Your task to perform on an android device: turn notification dots off Image 0: 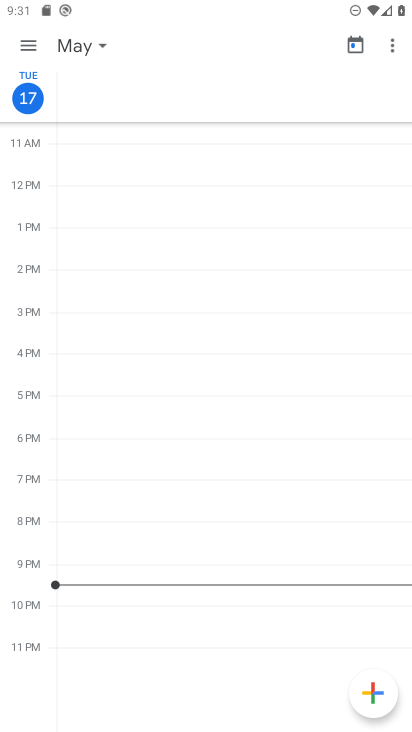
Step 0: press home button
Your task to perform on an android device: turn notification dots off Image 1: 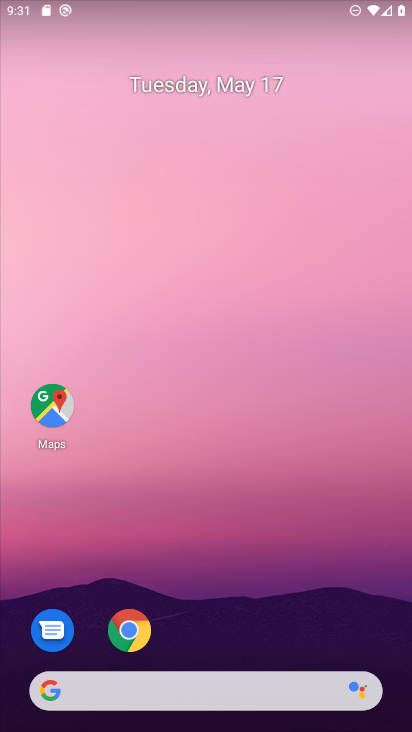
Step 1: drag from (330, 561) to (321, 157)
Your task to perform on an android device: turn notification dots off Image 2: 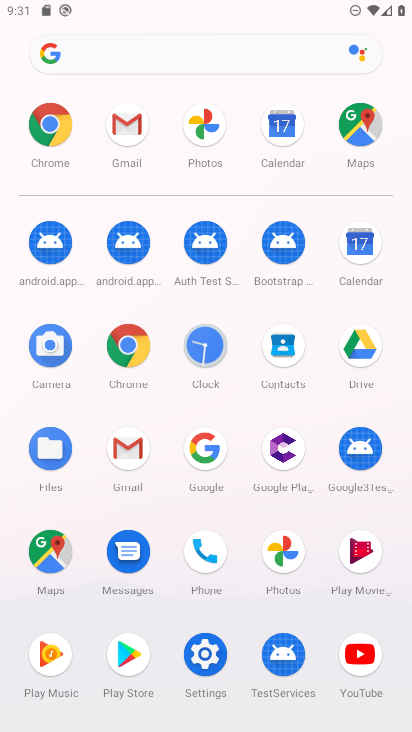
Step 2: click (193, 657)
Your task to perform on an android device: turn notification dots off Image 3: 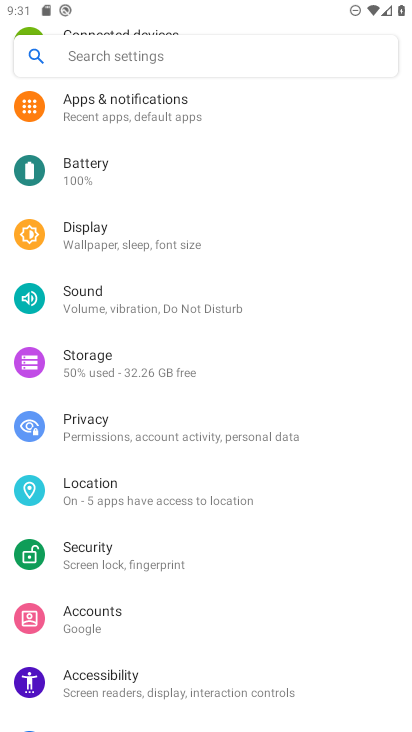
Step 3: drag from (297, 600) to (308, 357)
Your task to perform on an android device: turn notification dots off Image 4: 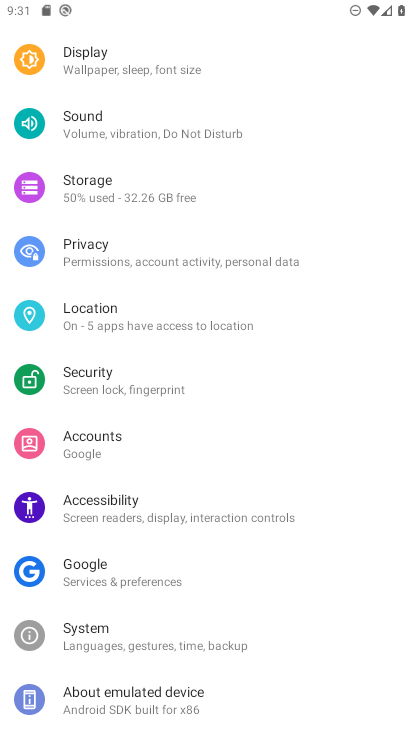
Step 4: drag from (340, 601) to (360, 294)
Your task to perform on an android device: turn notification dots off Image 5: 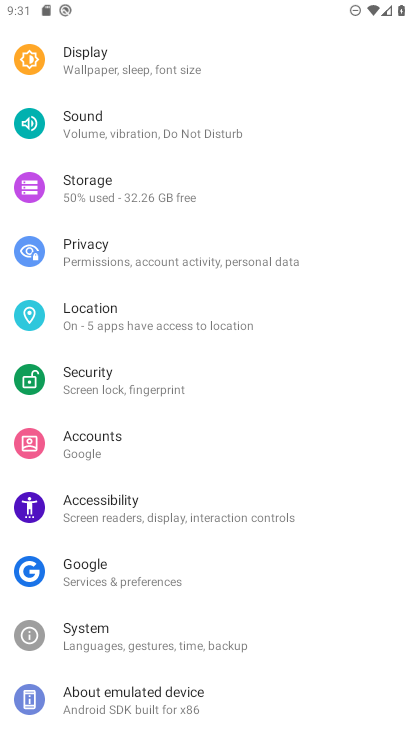
Step 5: drag from (360, 202) to (342, 364)
Your task to perform on an android device: turn notification dots off Image 6: 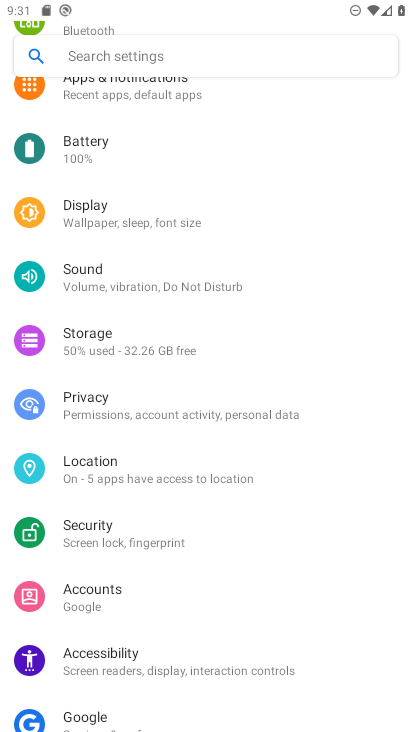
Step 6: drag from (351, 207) to (333, 429)
Your task to perform on an android device: turn notification dots off Image 7: 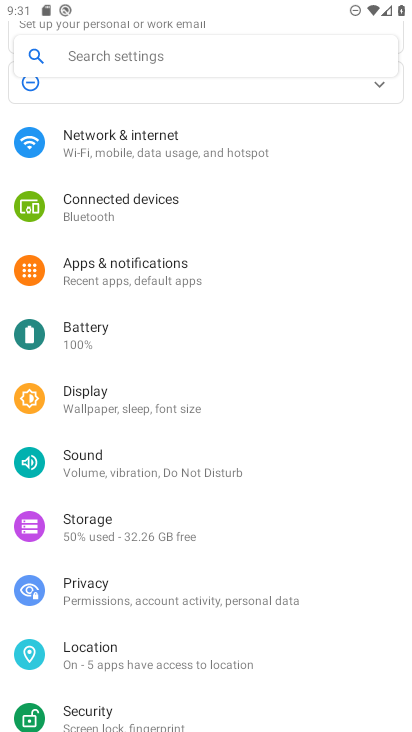
Step 7: click (180, 278)
Your task to perform on an android device: turn notification dots off Image 8: 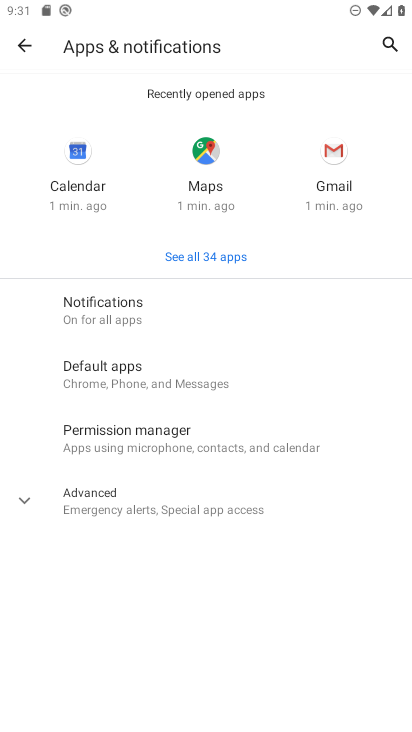
Step 8: click (139, 297)
Your task to perform on an android device: turn notification dots off Image 9: 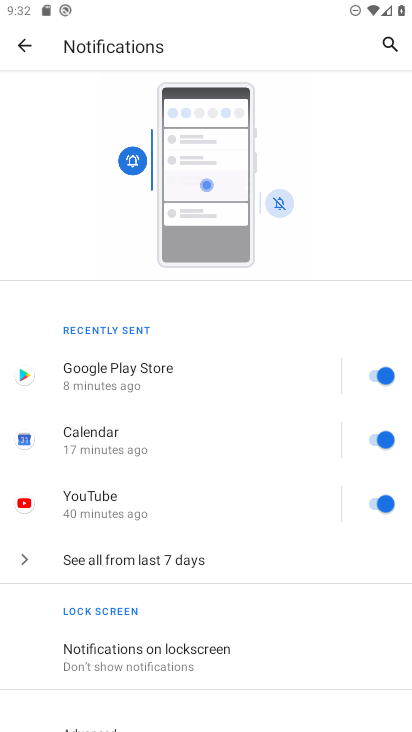
Step 9: drag from (265, 527) to (293, 360)
Your task to perform on an android device: turn notification dots off Image 10: 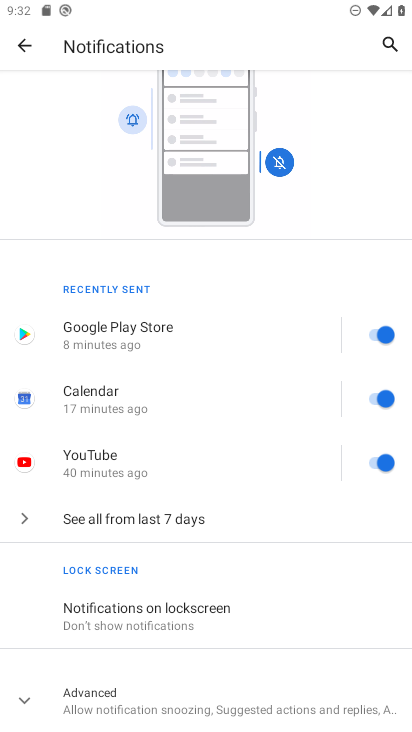
Step 10: drag from (304, 597) to (312, 405)
Your task to perform on an android device: turn notification dots off Image 11: 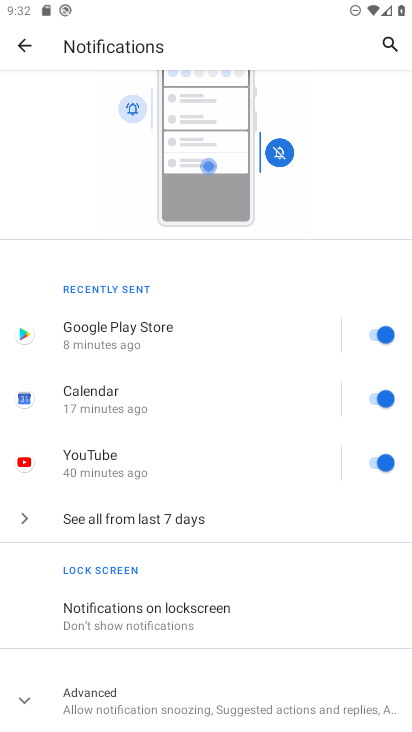
Step 11: drag from (286, 604) to (304, 490)
Your task to perform on an android device: turn notification dots off Image 12: 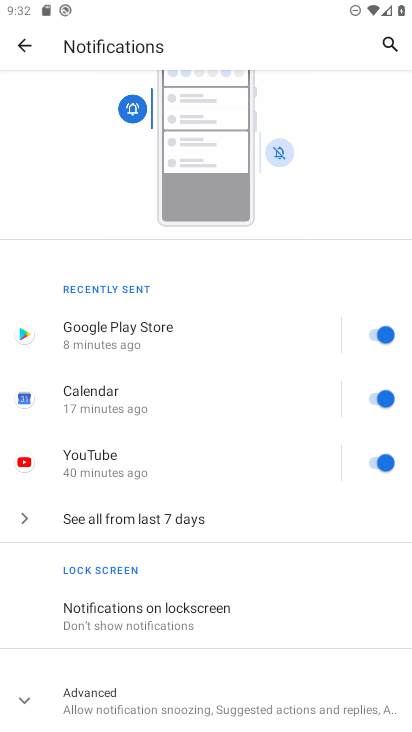
Step 12: drag from (280, 594) to (305, 366)
Your task to perform on an android device: turn notification dots off Image 13: 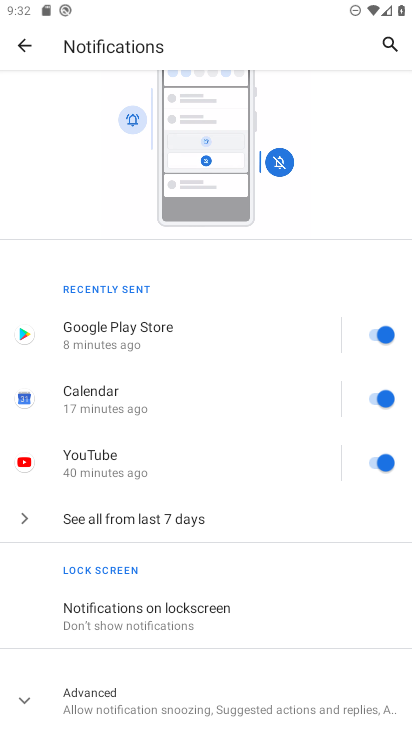
Step 13: click (173, 692)
Your task to perform on an android device: turn notification dots off Image 14: 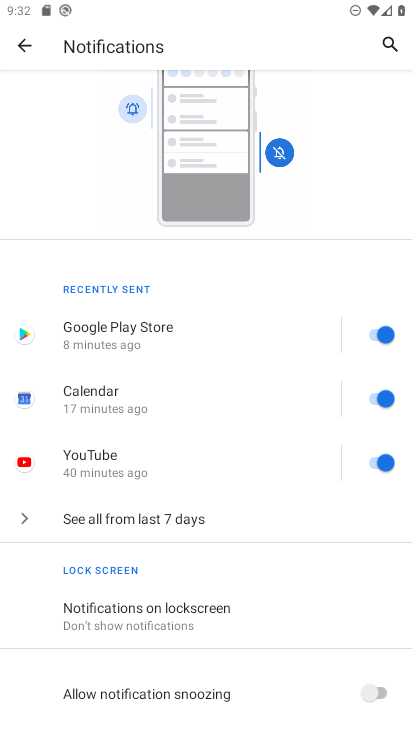
Step 14: drag from (250, 630) to (273, 360)
Your task to perform on an android device: turn notification dots off Image 15: 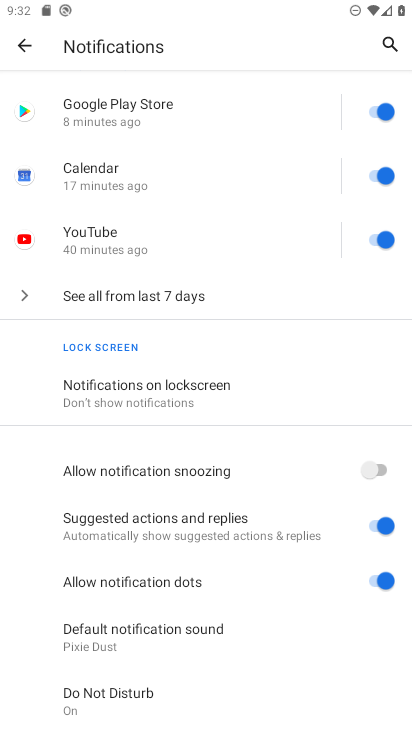
Step 15: drag from (279, 622) to (281, 357)
Your task to perform on an android device: turn notification dots off Image 16: 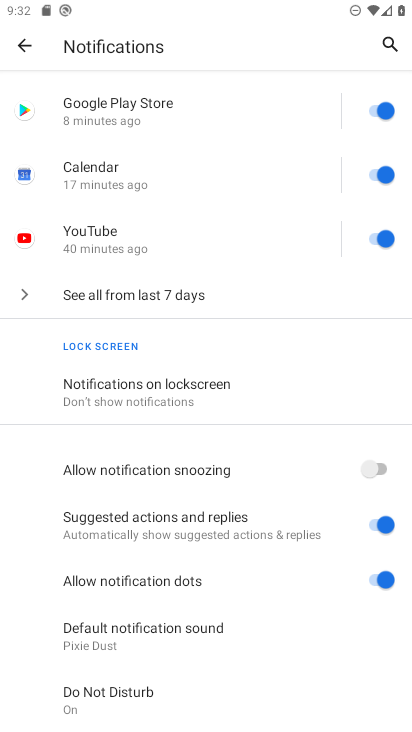
Step 16: click (389, 579)
Your task to perform on an android device: turn notification dots off Image 17: 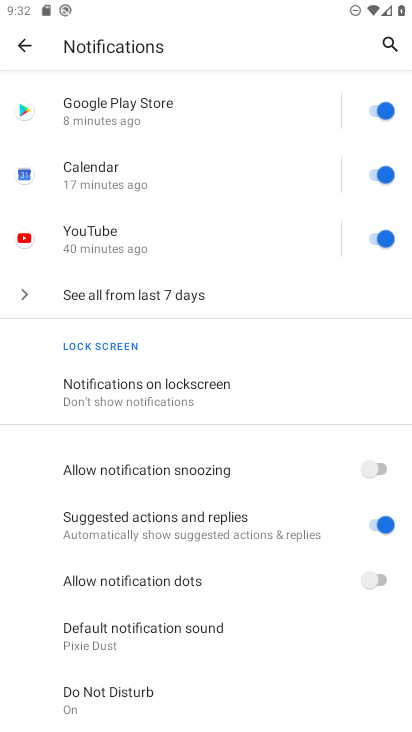
Step 17: task complete